Your task to perform on an android device: set default search engine in the chrome app Image 0: 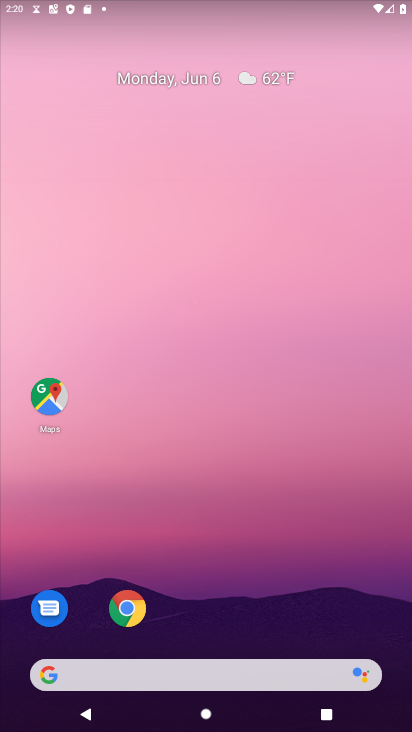
Step 0: drag from (304, 600) to (344, 0)
Your task to perform on an android device: set default search engine in the chrome app Image 1: 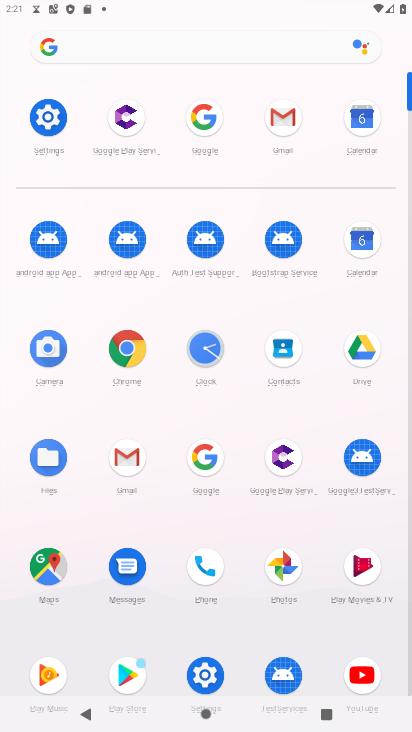
Step 1: click (131, 349)
Your task to perform on an android device: set default search engine in the chrome app Image 2: 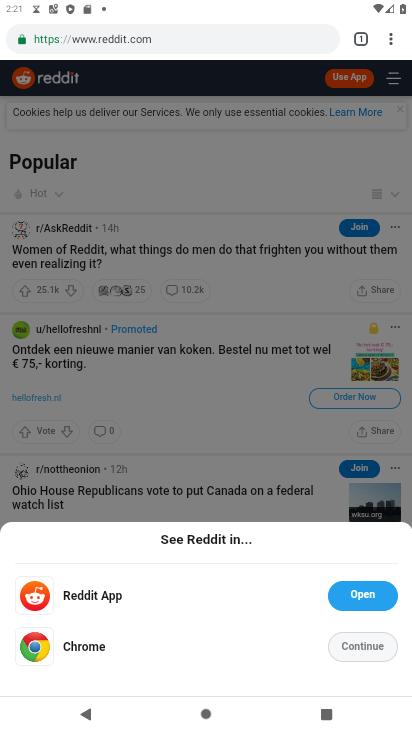
Step 2: drag from (396, 36) to (249, 480)
Your task to perform on an android device: set default search engine in the chrome app Image 3: 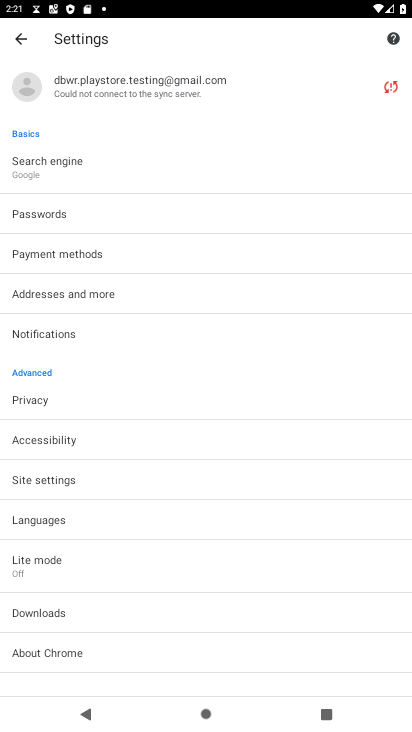
Step 3: click (100, 169)
Your task to perform on an android device: set default search engine in the chrome app Image 4: 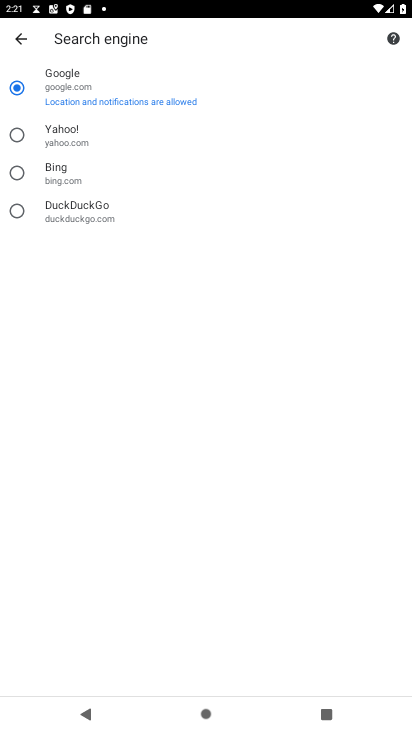
Step 4: task complete